Your task to perform on an android device: Go to location settings Image 0: 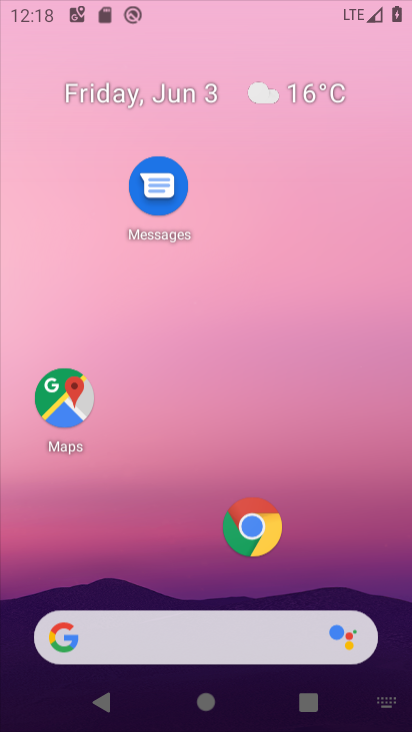
Step 0: press home button
Your task to perform on an android device: Go to location settings Image 1: 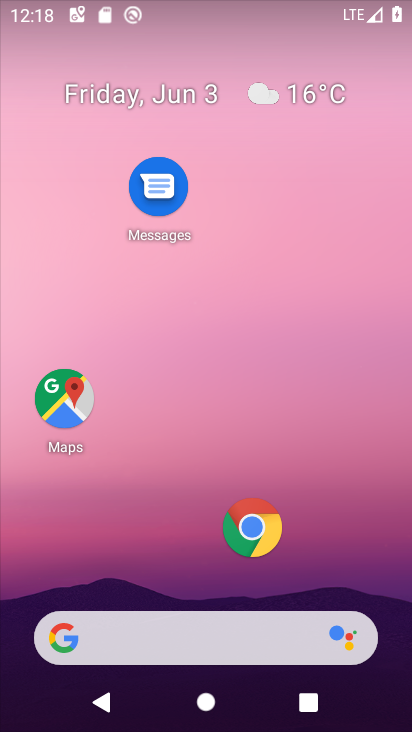
Step 1: drag from (204, 587) to (295, 74)
Your task to perform on an android device: Go to location settings Image 2: 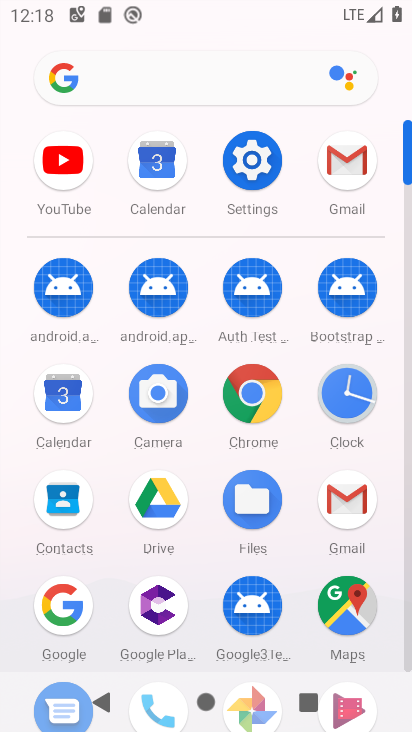
Step 2: click (249, 152)
Your task to perform on an android device: Go to location settings Image 3: 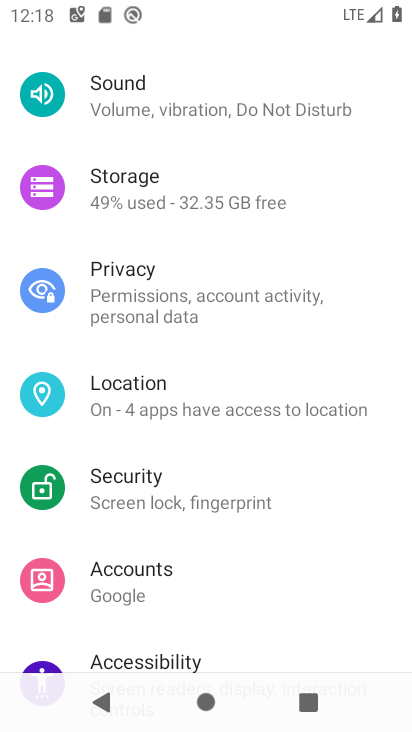
Step 3: click (183, 390)
Your task to perform on an android device: Go to location settings Image 4: 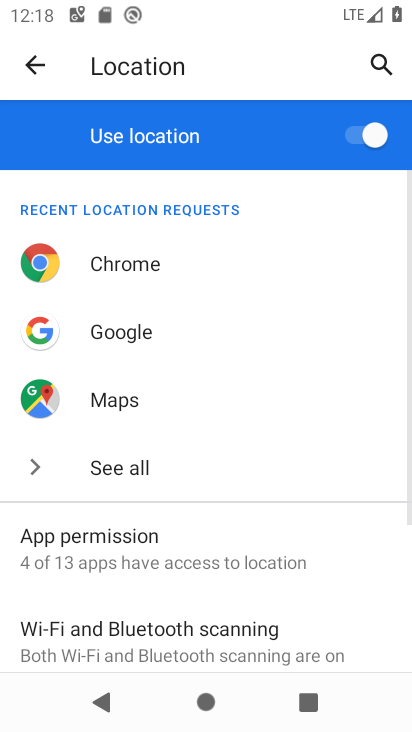
Step 4: drag from (252, 640) to (312, 243)
Your task to perform on an android device: Go to location settings Image 5: 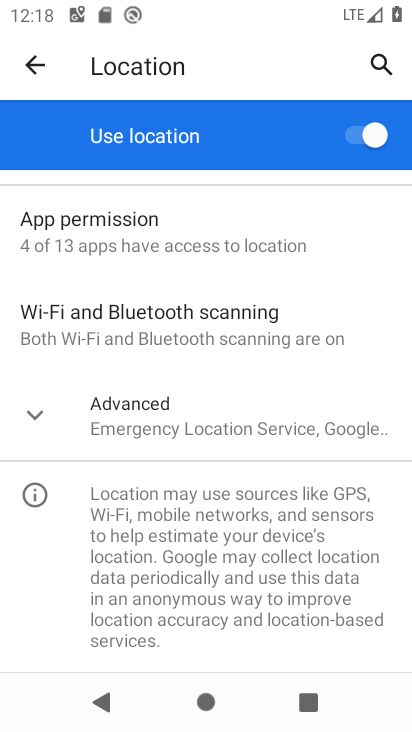
Step 5: click (31, 400)
Your task to perform on an android device: Go to location settings Image 6: 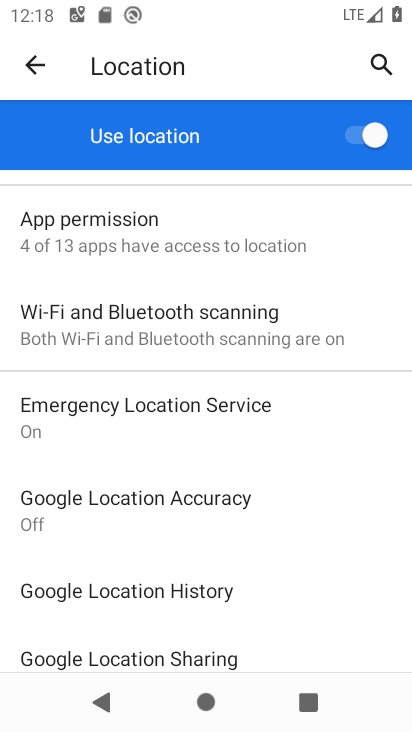
Step 6: task complete